Your task to perform on an android device: Clear all items from cart on bestbuy. Search for razer blade on bestbuy, select the first entry, add it to the cart, then select checkout. Image 0: 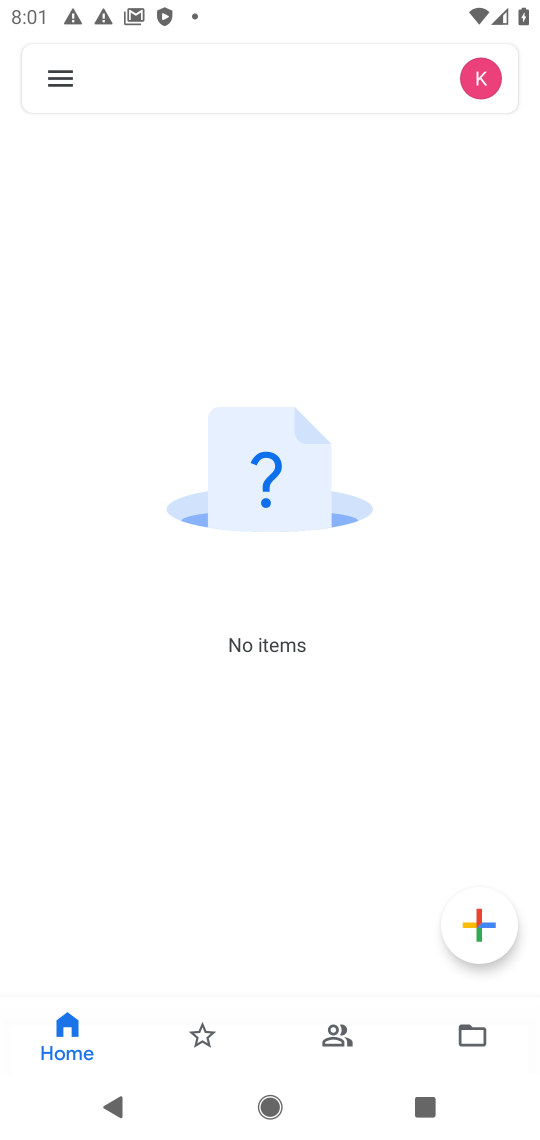
Step 0: drag from (311, 900) to (318, 356)
Your task to perform on an android device: Clear all items from cart on bestbuy. Search for razer blade on bestbuy, select the first entry, add it to the cart, then select checkout. Image 1: 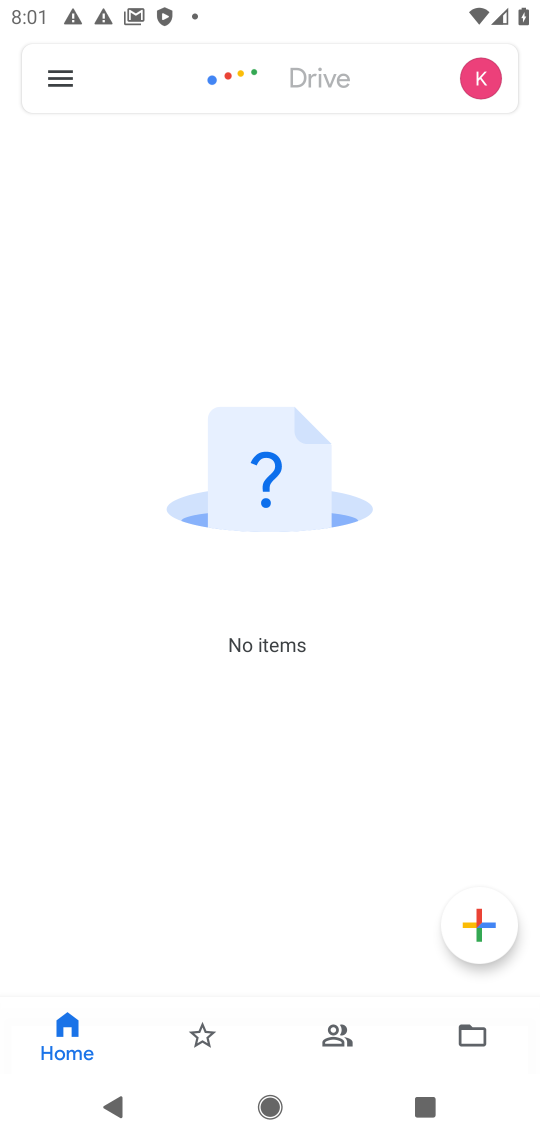
Step 1: press home button
Your task to perform on an android device: Clear all items from cart on bestbuy. Search for razer blade on bestbuy, select the first entry, add it to the cart, then select checkout. Image 2: 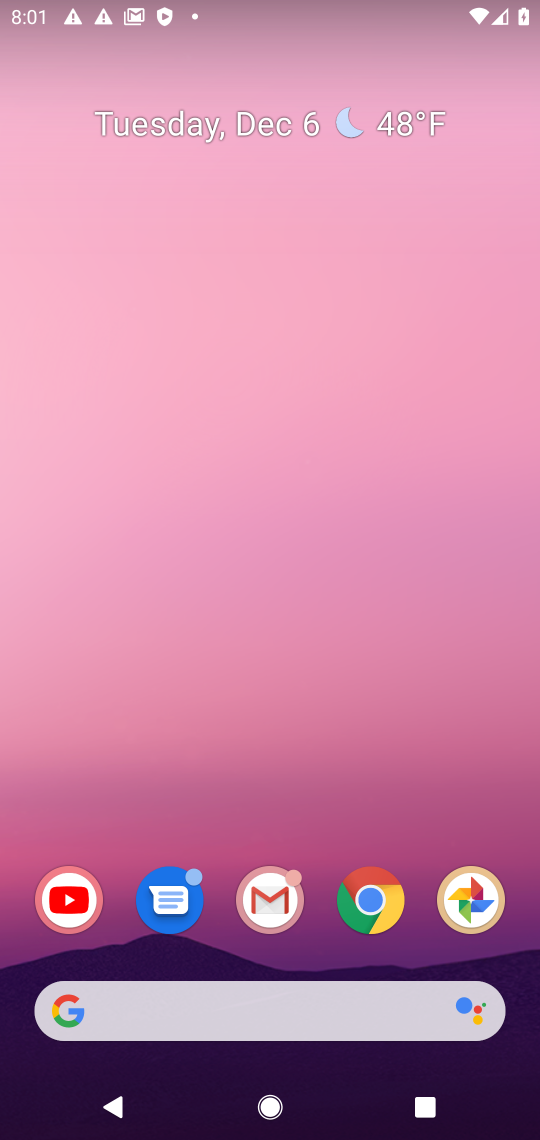
Step 2: drag from (185, 873) to (251, 443)
Your task to perform on an android device: Clear all items from cart on bestbuy. Search for razer blade on bestbuy, select the first entry, add it to the cart, then select checkout. Image 3: 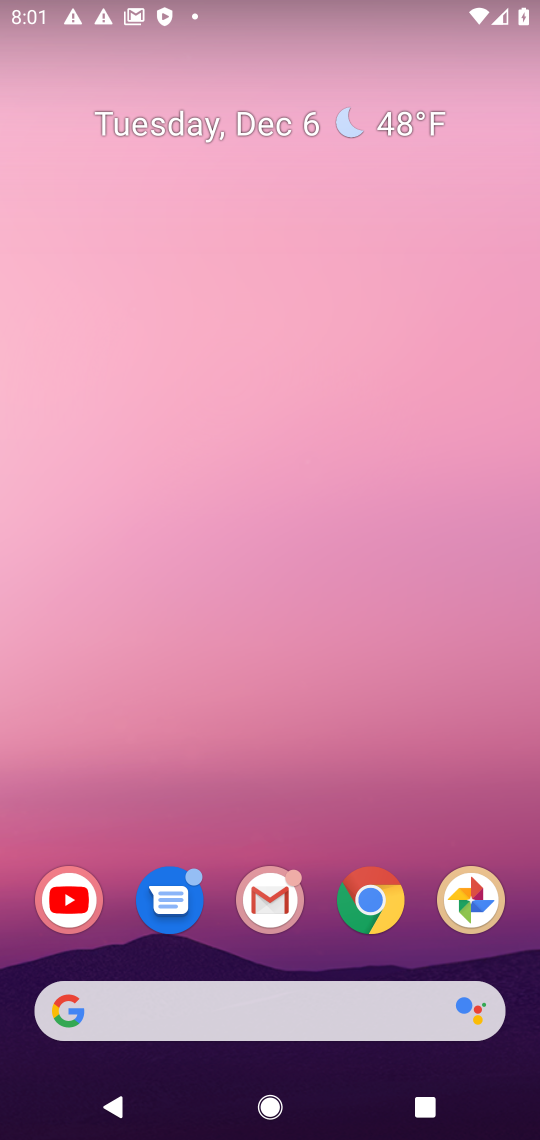
Step 3: drag from (196, 855) to (293, 214)
Your task to perform on an android device: Clear all items from cart on bestbuy. Search for razer blade on bestbuy, select the first entry, add it to the cart, then select checkout. Image 4: 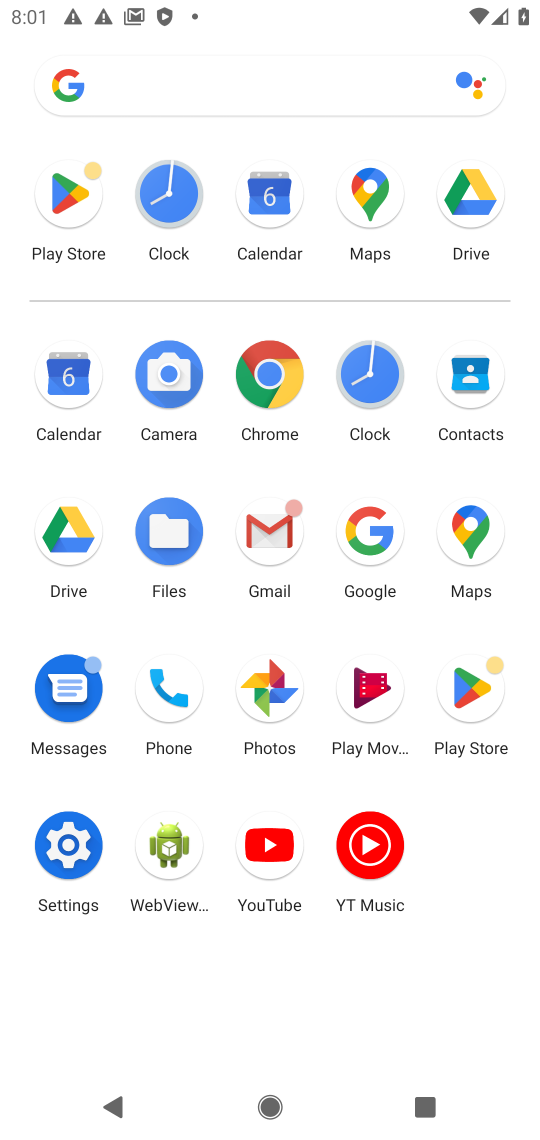
Step 4: click (372, 530)
Your task to perform on an android device: Clear all items from cart on bestbuy. Search for razer blade on bestbuy, select the first entry, add it to the cart, then select checkout. Image 5: 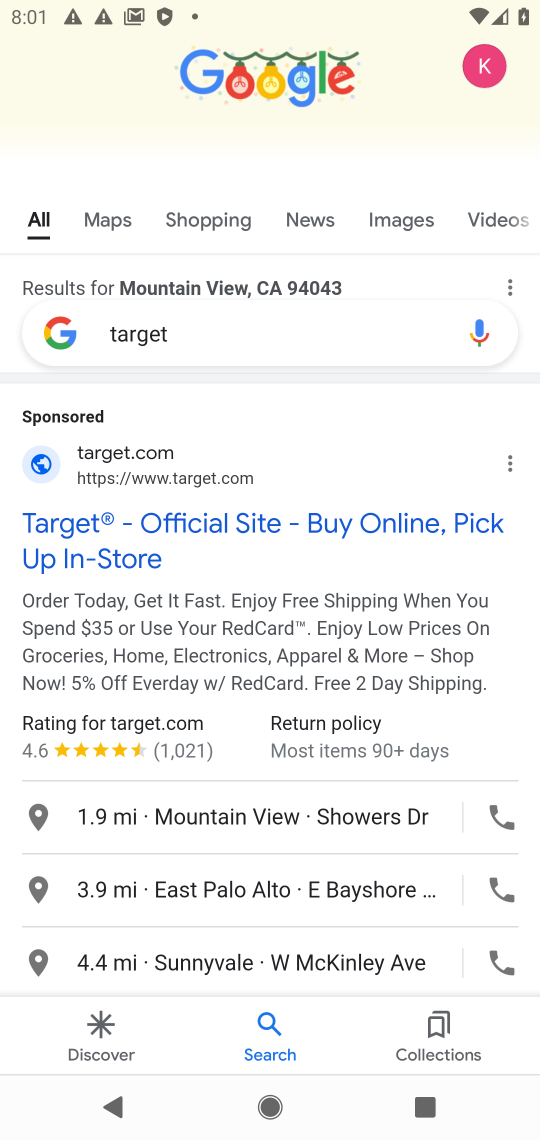
Step 5: click (223, 323)
Your task to perform on an android device: Clear all items from cart on bestbuy. Search for razer blade on bestbuy, select the first entry, add it to the cart, then select checkout. Image 6: 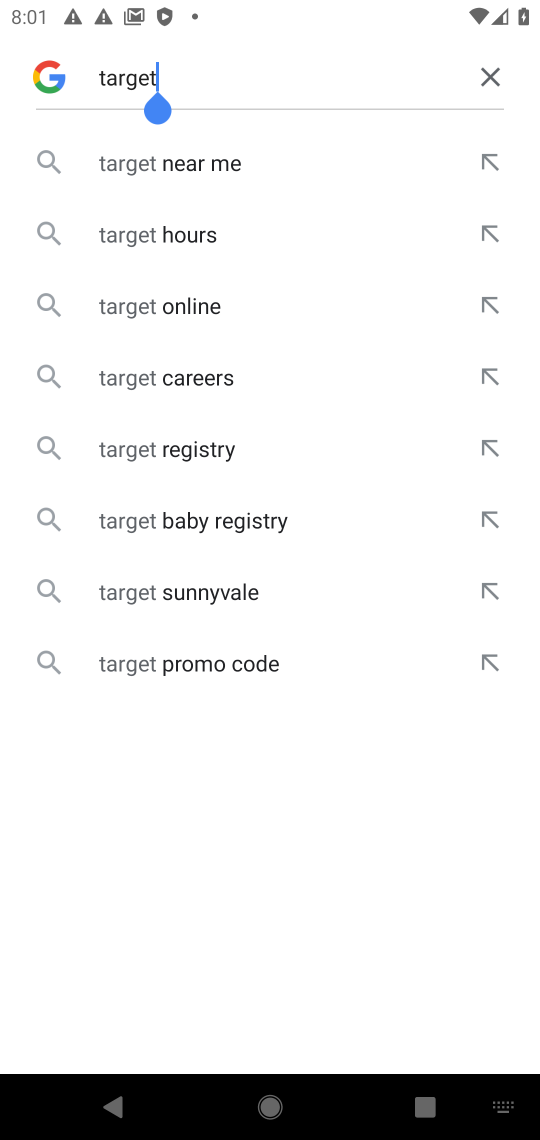
Step 6: click (490, 70)
Your task to perform on an android device: Clear all items from cart on bestbuy. Search for razer blade on bestbuy, select the first entry, add it to the cart, then select checkout. Image 7: 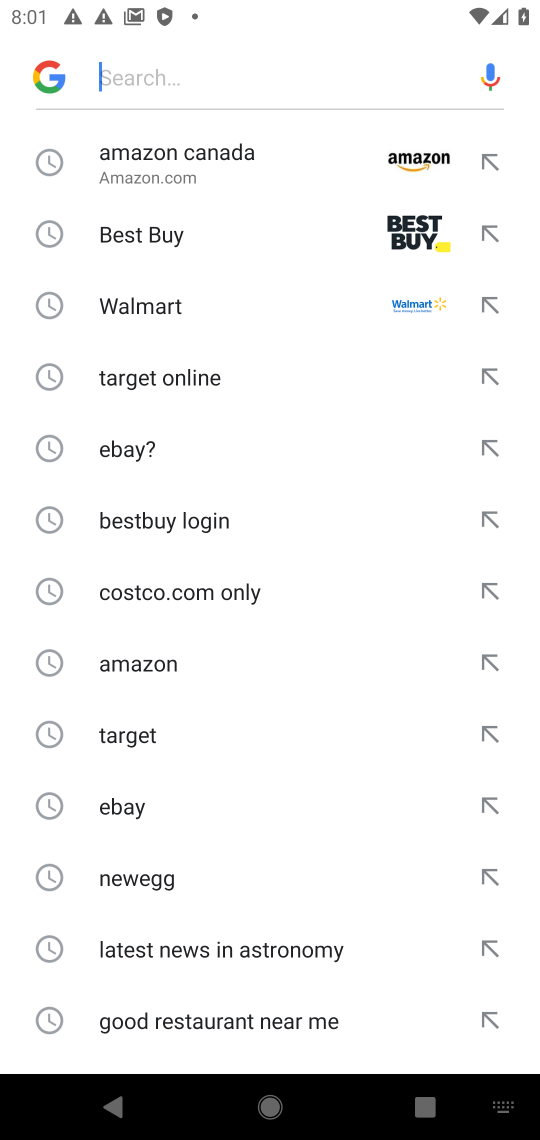
Step 7: click (399, 227)
Your task to perform on an android device: Clear all items from cart on bestbuy. Search for razer blade on bestbuy, select the first entry, add it to the cart, then select checkout. Image 8: 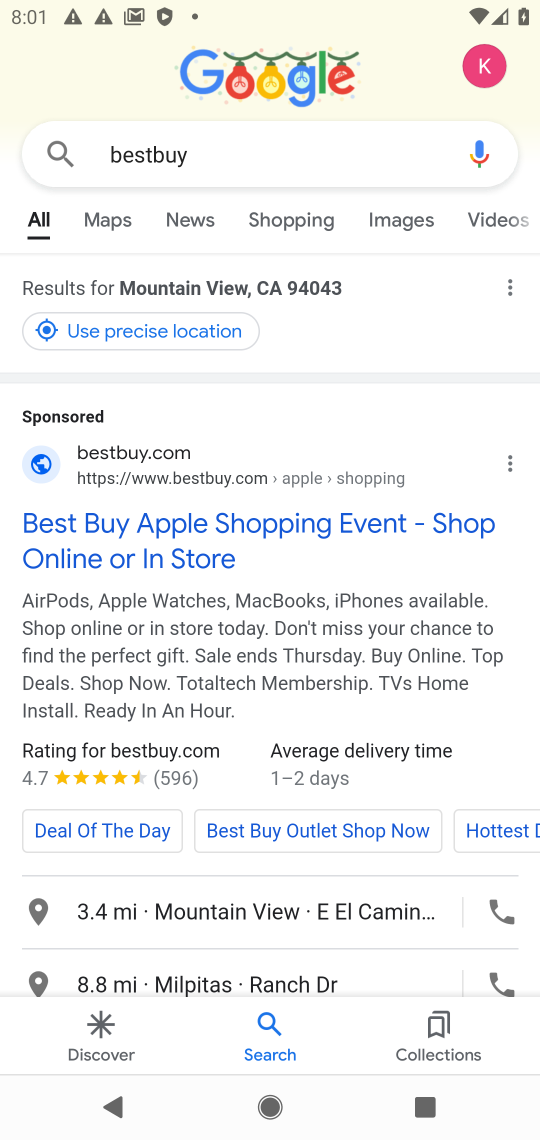
Step 8: click (100, 526)
Your task to perform on an android device: Clear all items from cart on bestbuy. Search for razer blade on bestbuy, select the first entry, add it to the cart, then select checkout. Image 9: 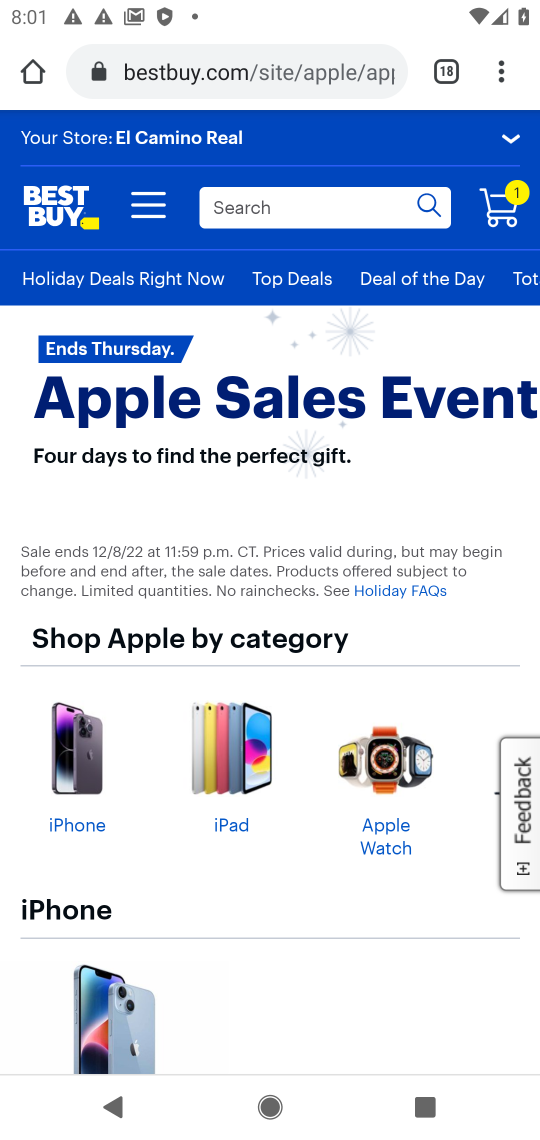
Step 9: click (488, 200)
Your task to perform on an android device: Clear all items from cart on bestbuy. Search for razer blade on bestbuy, select the first entry, add it to the cart, then select checkout. Image 10: 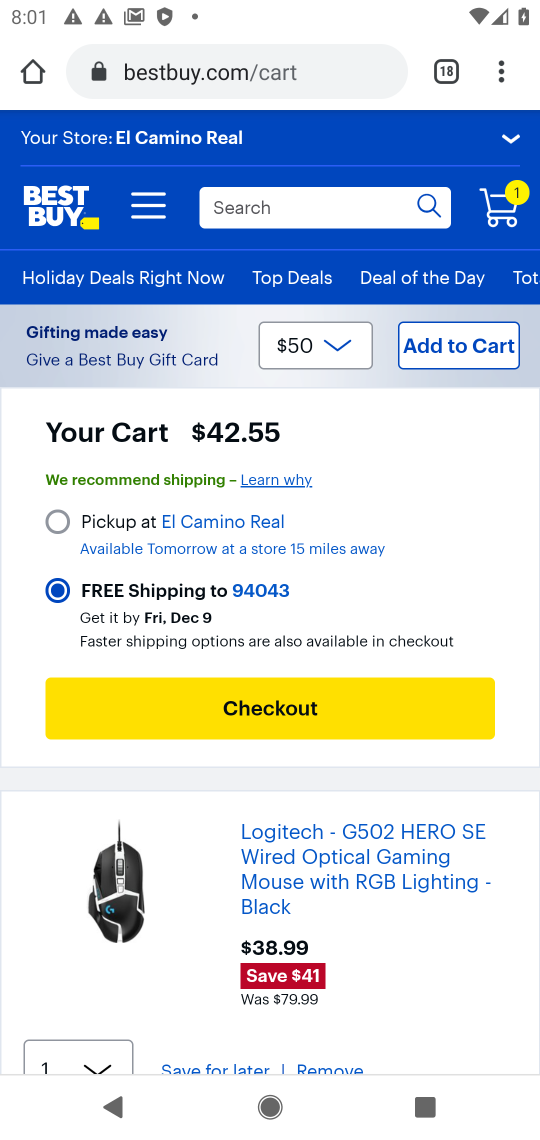
Step 10: drag from (373, 822) to (384, 345)
Your task to perform on an android device: Clear all items from cart on bestbuy. Search for razer blade on bestbuy, select the first entry, add it to the cart, then select checkout. Image 11: 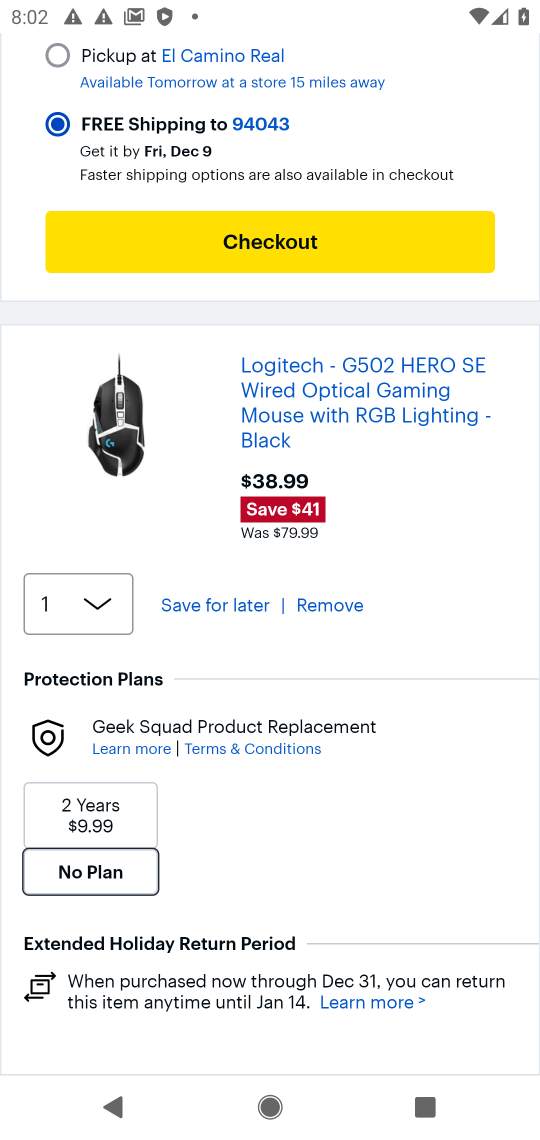
Step 11: click (348, 598)
Your task to perform on an android device: Clear all items from cart on bestbuy. Search for razer blade on bestbuy, select the first entry, add it to the cart, then select checkout. Image 12: 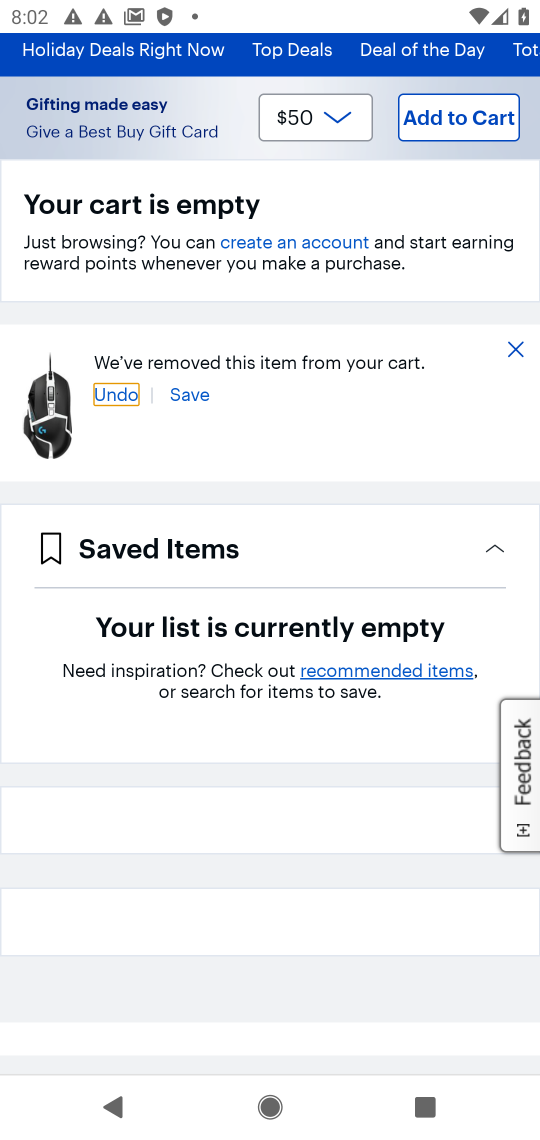
Step 12: press back button
Your task to perform on an android device: Clear all items from cart on bestbuy. Search for razer blade on bestbuy, select the first entry, add it to the cart, then select checkout. Image 13: 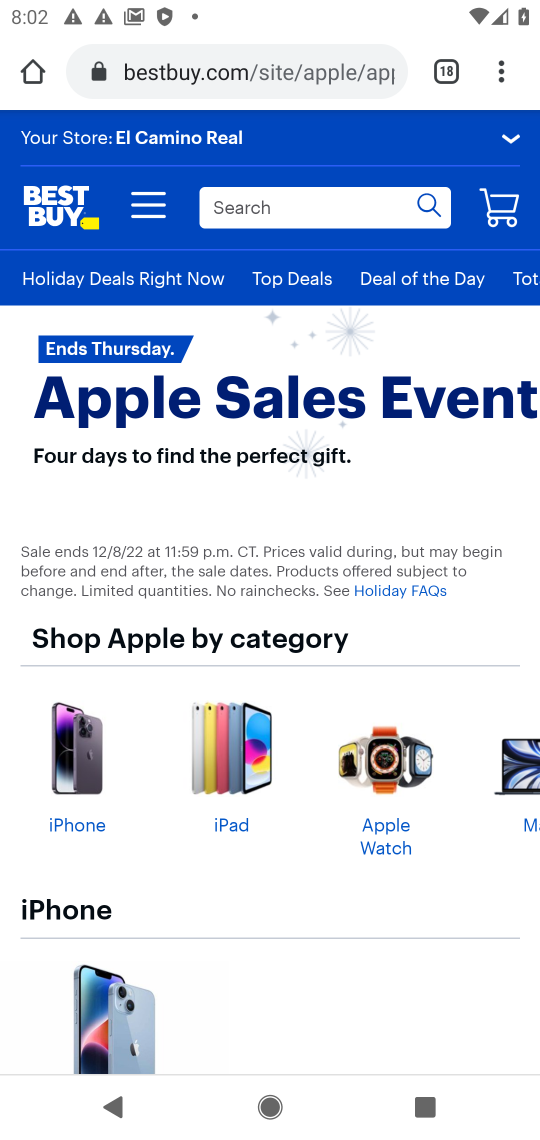
Step 13: click (269, 218)
Your task to perform on an android device: Clear all items from cart on bestbuy. Search for razer blade on bestbuy, select the first entry, add it to the cart, then select checkout. Image 14: 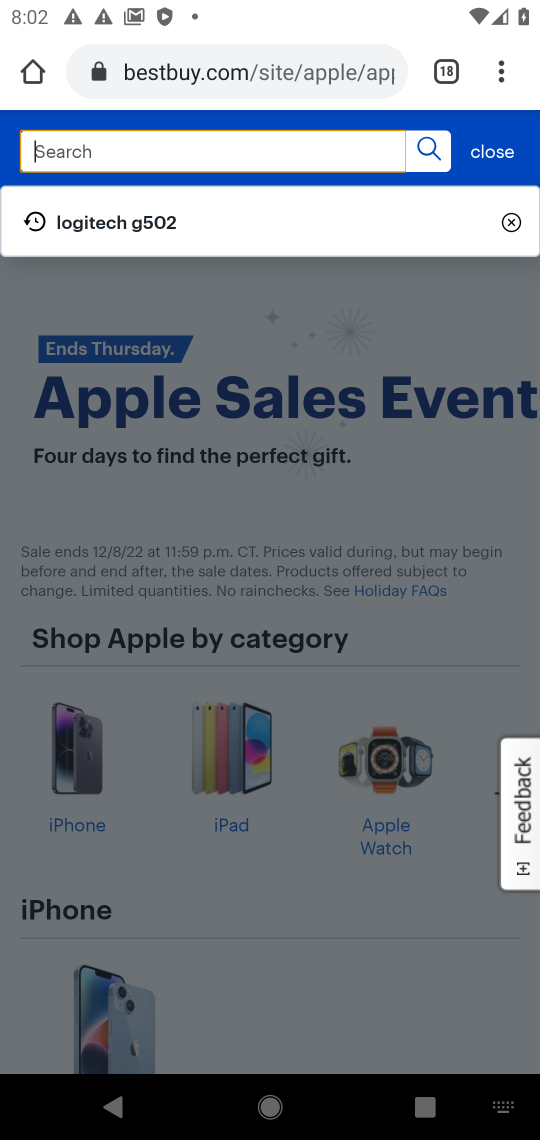
Step 14: type "razer blade"
Your task to perform on an android device: Clear all items from cart on bestbuy. Search for razer blade on bestbuy, select the first entry, add it to the cart, then select checkout. Image 15: 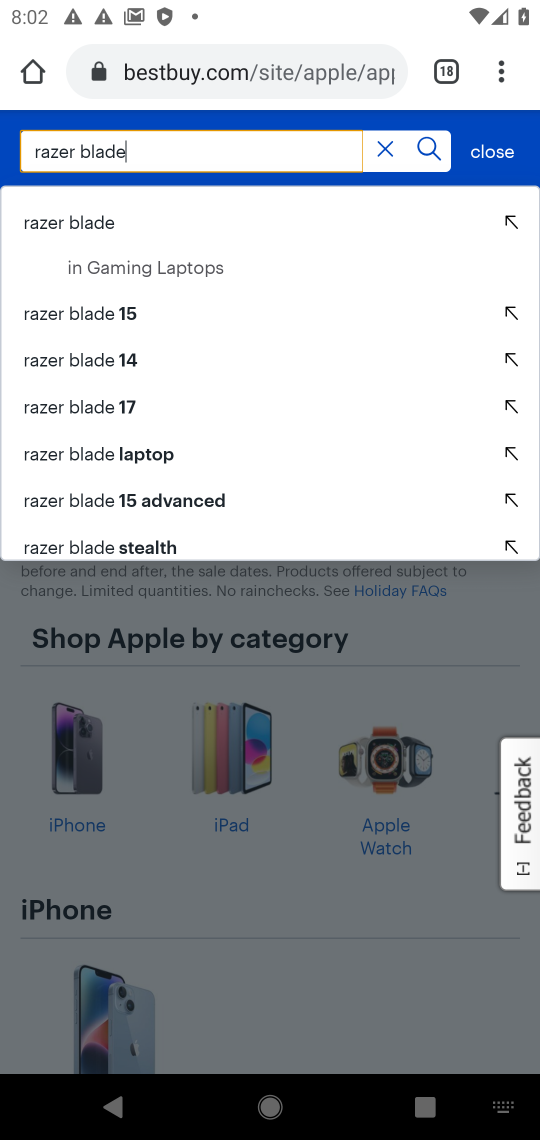
Step 15: click (47, 223)
Your task to perform on an android device: Clear all items from cart on bestbuy. Search for razer blade on bestbuy, select the first entry, add it to the cart, then select checkout. Image 16: 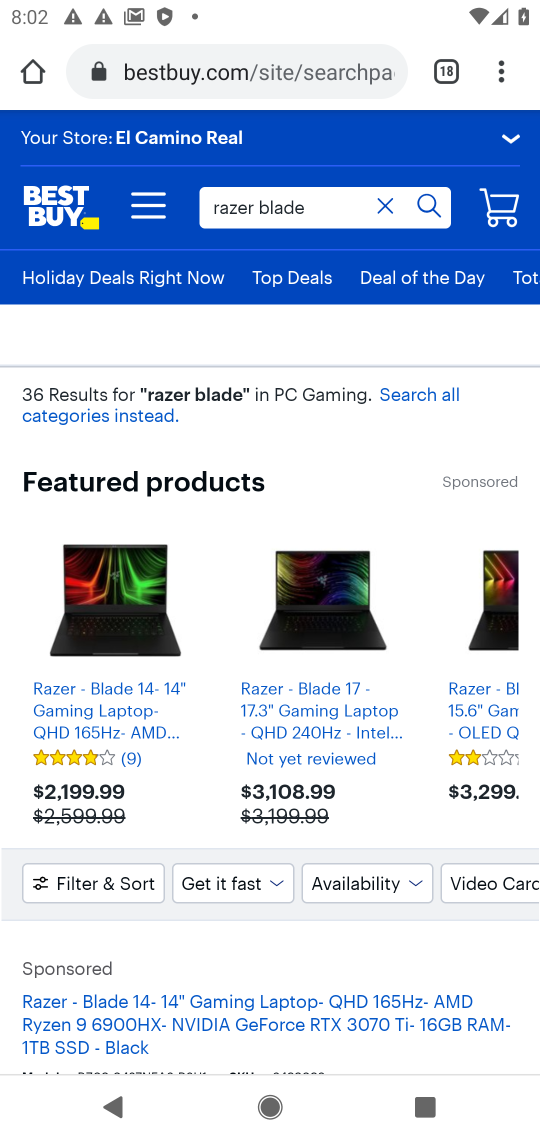
Step 16: drag from (237, 949) to (235, 435)
Your task to perform on an android device: Clear all items from cart on bestbuy. Search for razer blade on bestbuy, select the first entry, add it to the cart, then select checkout. Image 17: 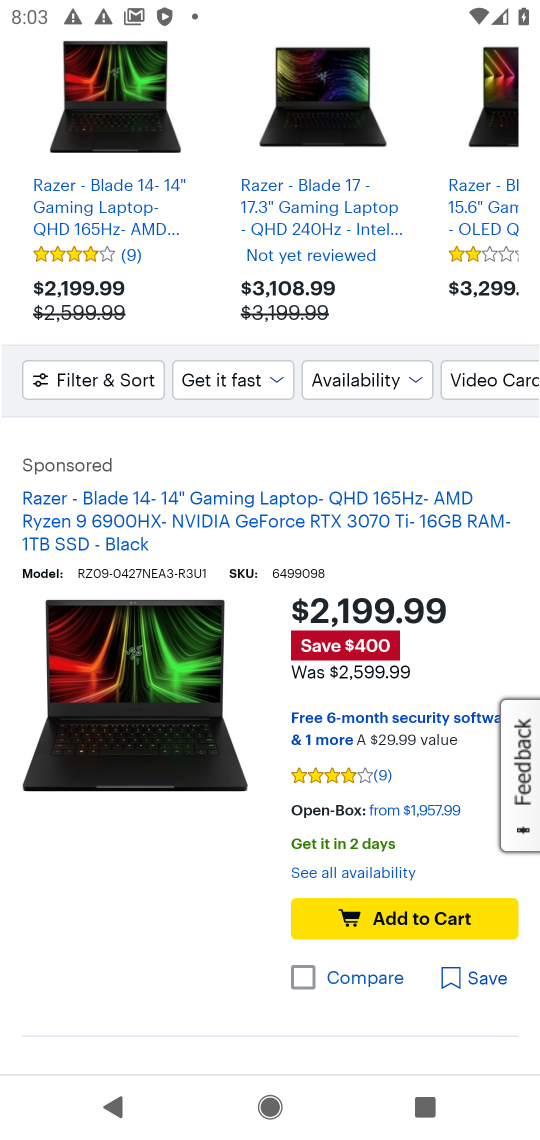
Step 17: click (423, 918)
Your task to perform on an android device: Clear all items from cart on bestbuy. Search for razer blade on bestbuy, select the first entry, add it to the cart, then select checkout. Image 18: 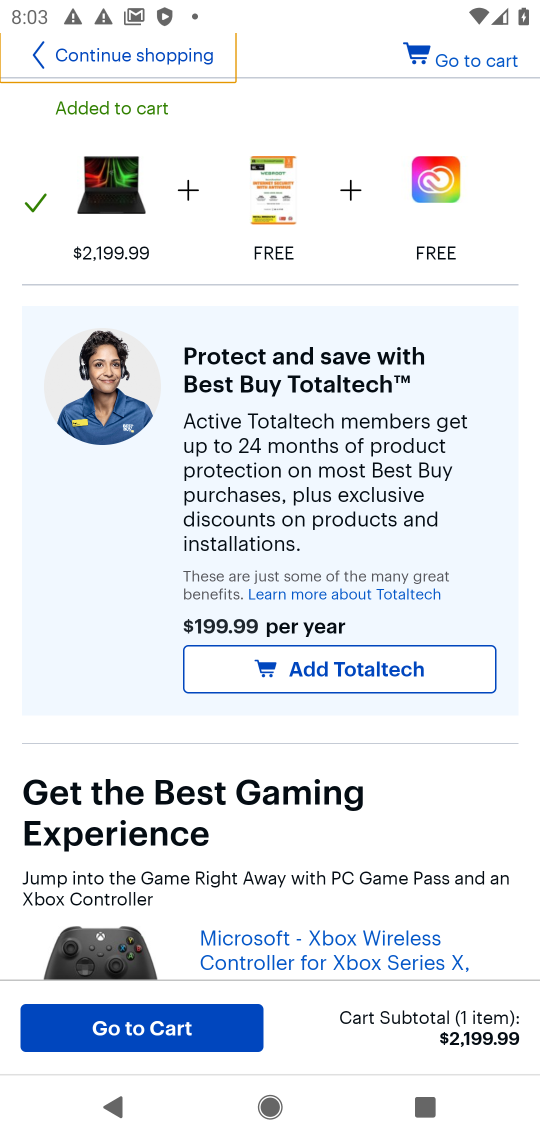
Step 18: click (123, 1025)
Your task to perform on an android device: Clear all items from cart on bestbuy. Search for razer blade on bestbuy, select the first entry, add it to the cart, then select checkout. Image 19: 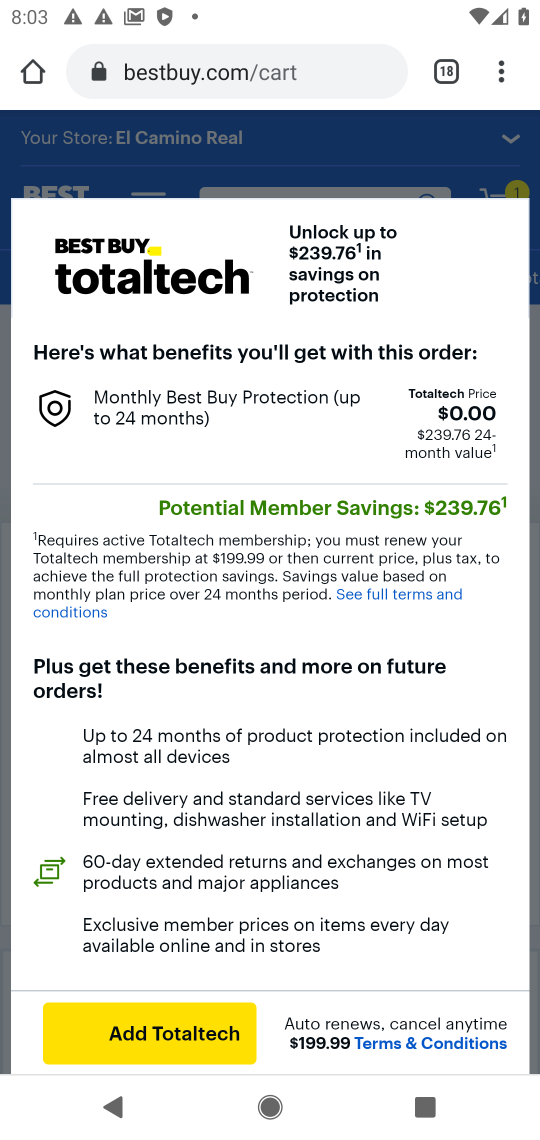
Step 19: click (274, 880)
Your task to perform on an android device: Clear all items from cart on bestbuy. Search for razer blade on bestbuy, select the first entry, add it to the cart, then select checkout. Image 20: 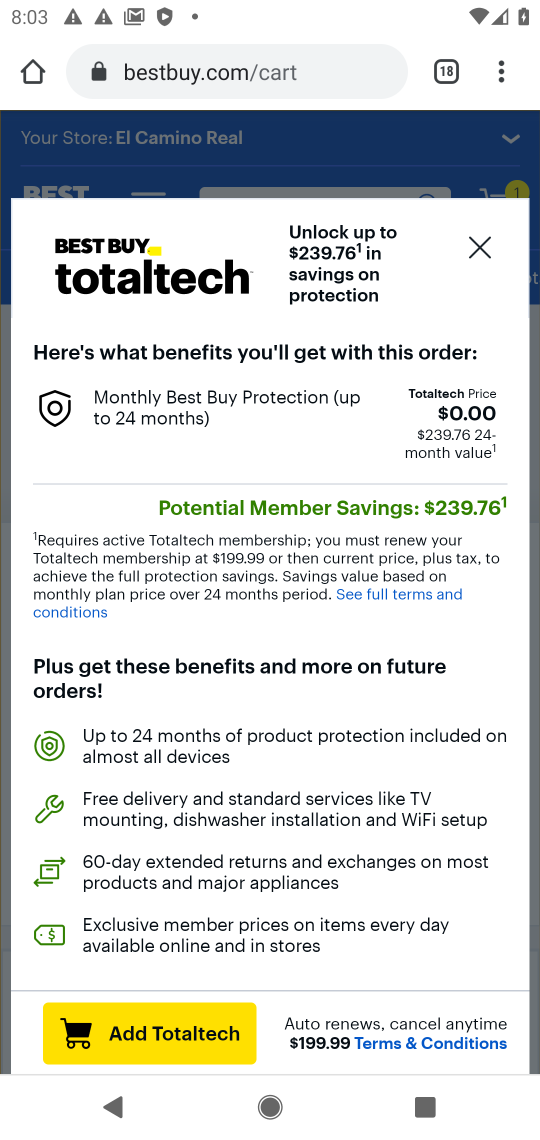
Step 20: click (486, 250)
Your task to perform on an android device: Clear all items from cart on bestbuy. Search for razer blade on bestbuy, select the first entry, add it to the cart, then select checkout. Image 21: 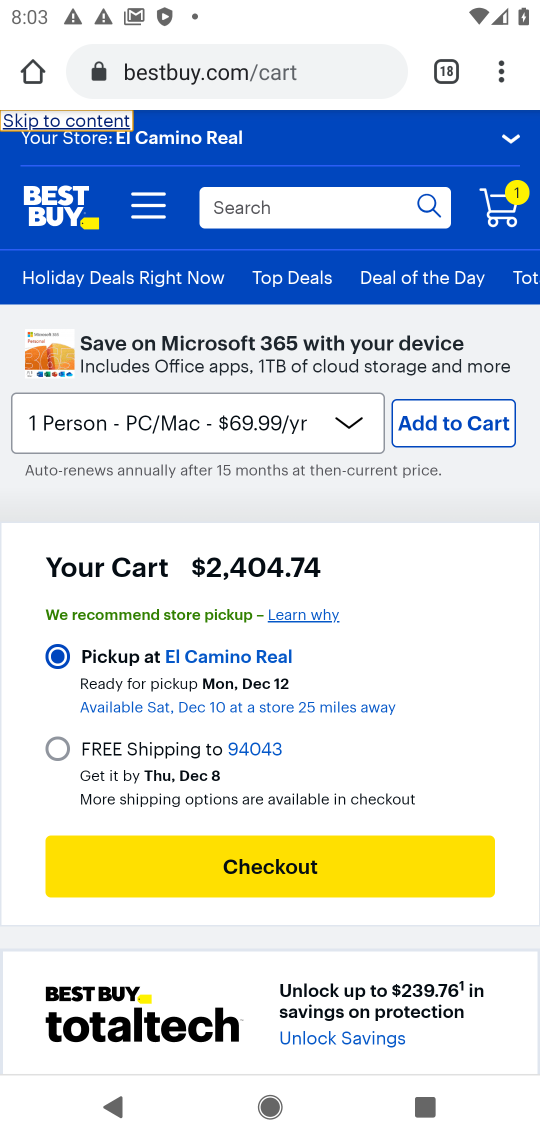
Step 21: click (291, 875)
Your task to perform on an android device: Clear all items from cart on bestbuy. Search for razer blade on bestbuy, select the first entry, add it to the cart, then select checkout. Image 22: 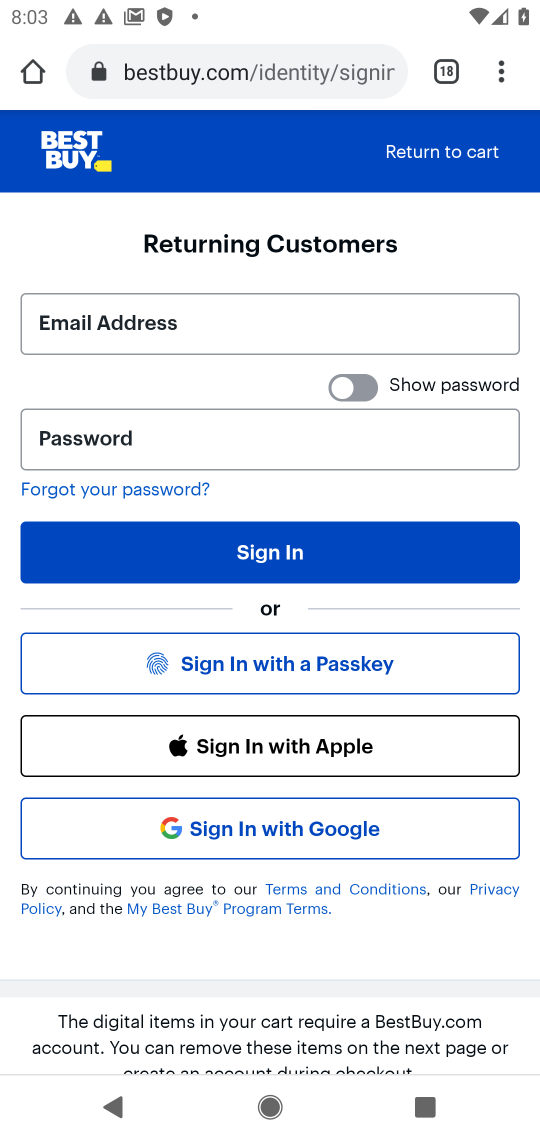
Step 22: task complete